Your task to perform on an android device: Search for vegetarian restaurants on Maps Image 0: 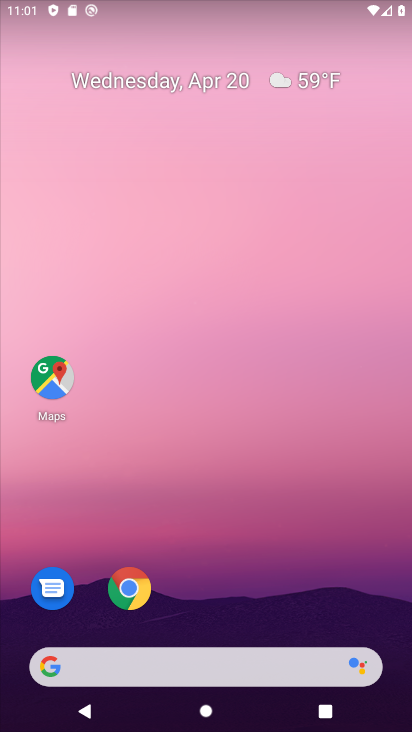
Step 0: drag from (225, 727) to (202, 55)
Your task to perform on an android device: Search for vegetarian restaurants on Maps Image 1: 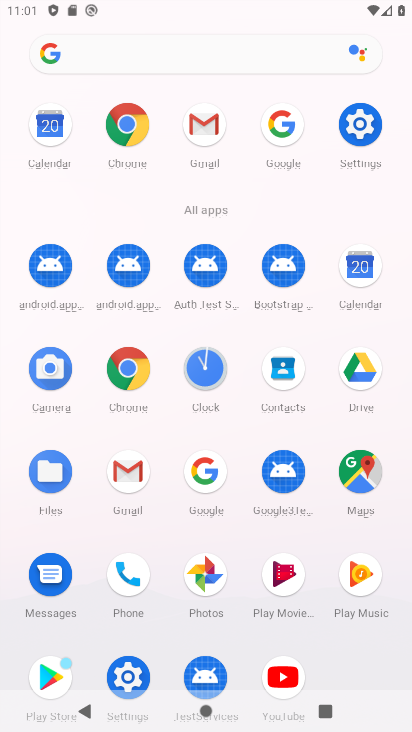
Step 1: click (363, 472)
Your task to perform on an android device: Search for vegetarian restaurants on Maps Image 2: 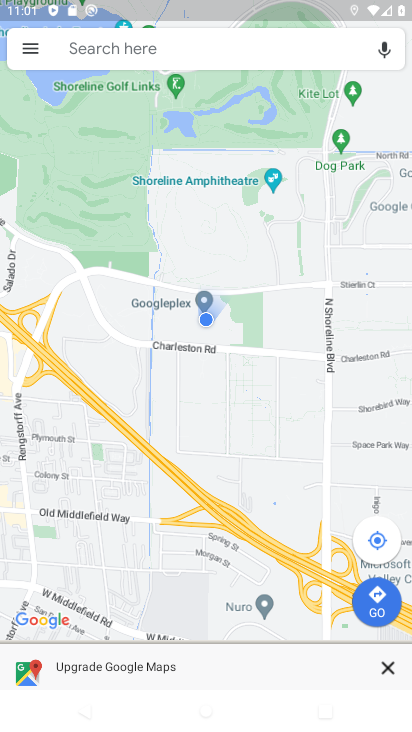
Step 2: click (114, 51)
Your task to perform on an android device: Search for vegetarian restaurants on Maps Image 3: 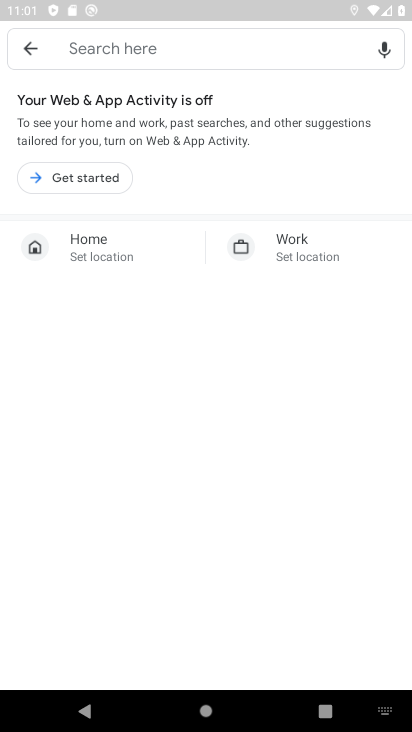
Step 3: type "vegetarian restaurants"
Your task to perform on an android device: Search for vegetarian restaurants on Maps Image 4: 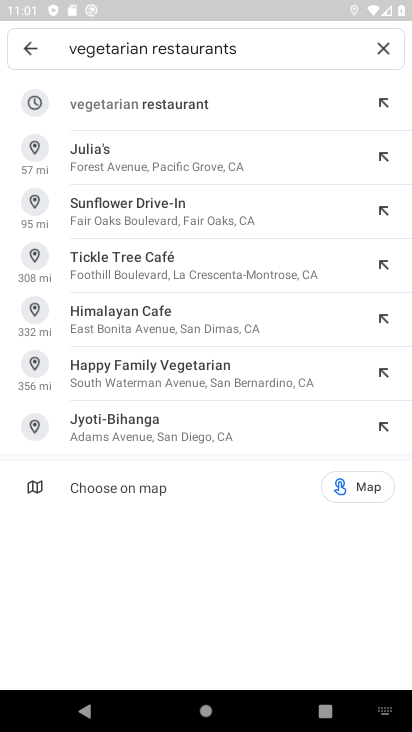
Step 4: click (184, 101)
Your task to perform on an android device: Search for vegetarian restaurants on Maps Image 5: 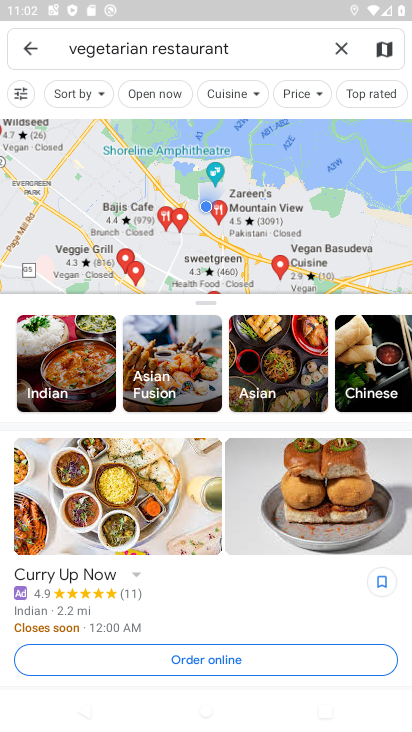
Step 5: task complete